Your task to perform on an android device: turn on improve location accuracy Image 0: 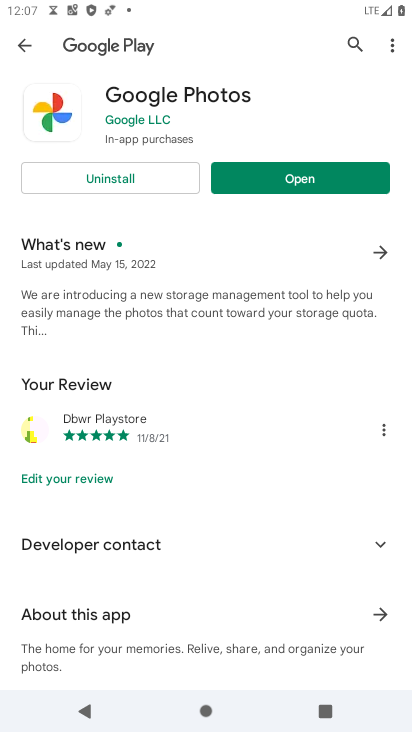
Step 0: press home button
Your task to perform on an android device: turn on improve location accuracy Image 1: 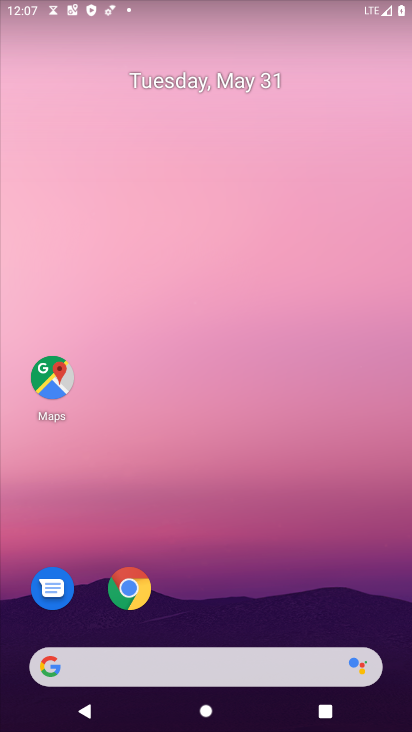
Step 1: drag from (210, 622) to (233, 170)
Your task to perform on an android device: turn on improve location accuracy Image 2: 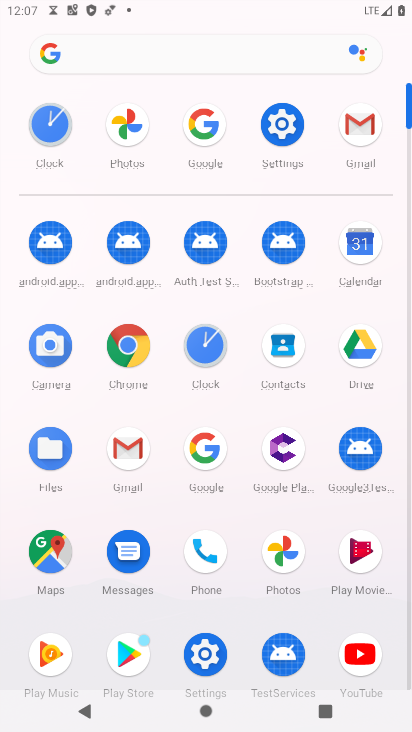
Step 2: click (274, 118)
Your task to perform on an android device: turn on improve location accuracy Image 3: 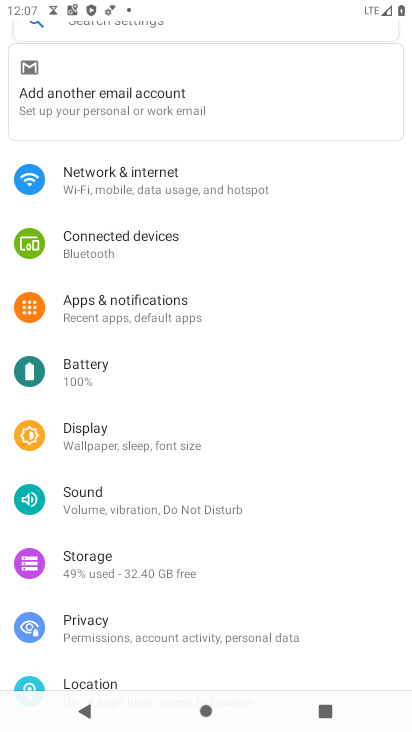
Step 3: click (124, 671)
Your task to perform on an android device: turn on improve location accuracy Image 4: 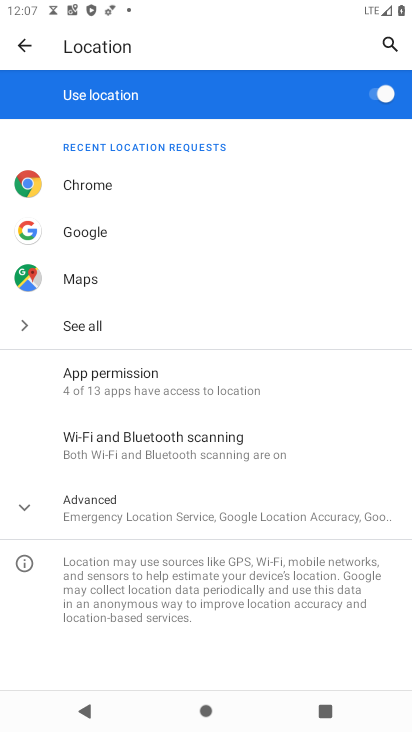
Step 4: click (17, 498)
Your task to perform on an android device: turn on improve location accuracy Image 5: 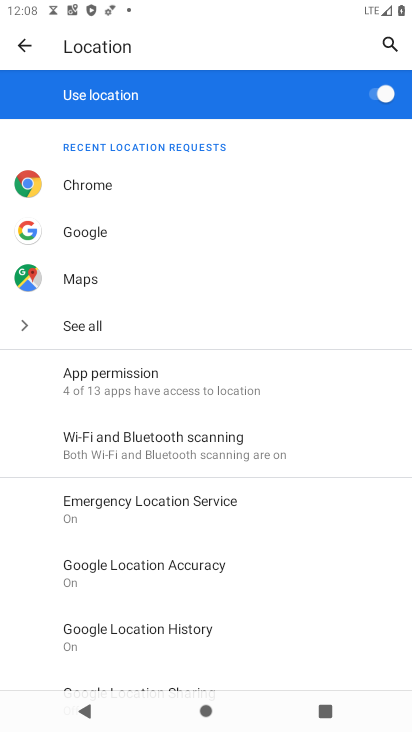
Step 5: click (181, 575)
Your task to perform on an android device: turn on improve location accuracy Image 6: 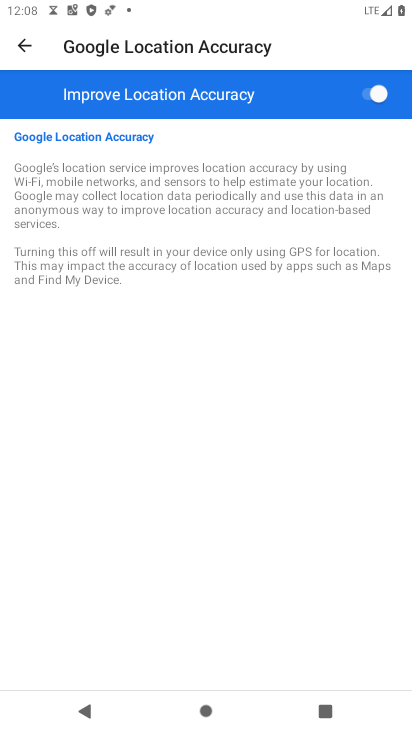
Step 6: click (368, 92)
Your task to perform on an android device: turn on improve location accuracy Image 7: 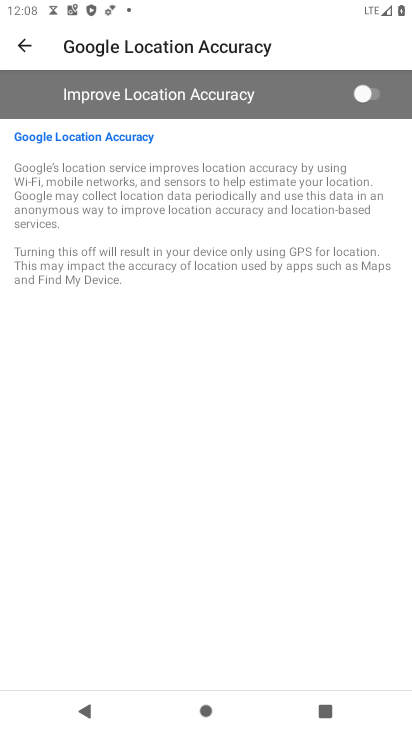
Step 7: task complete